Your task to perform on an android device: toggle priority inbox in the gmail app Image 0: 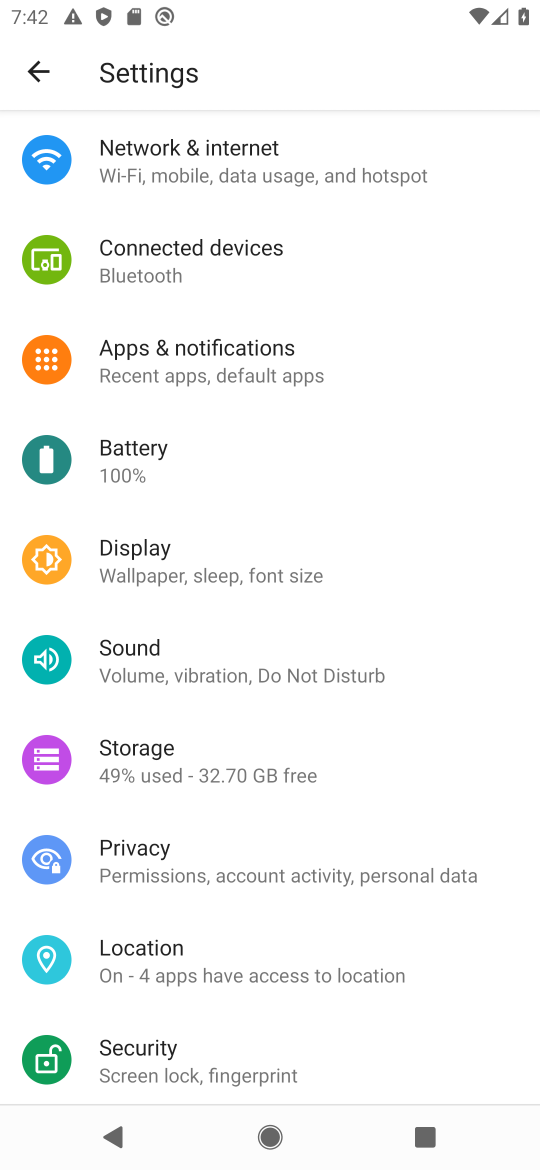
Step 0: press home button
Your task to perform on an android device: toggle priority inbox in the gmail app Image 1: 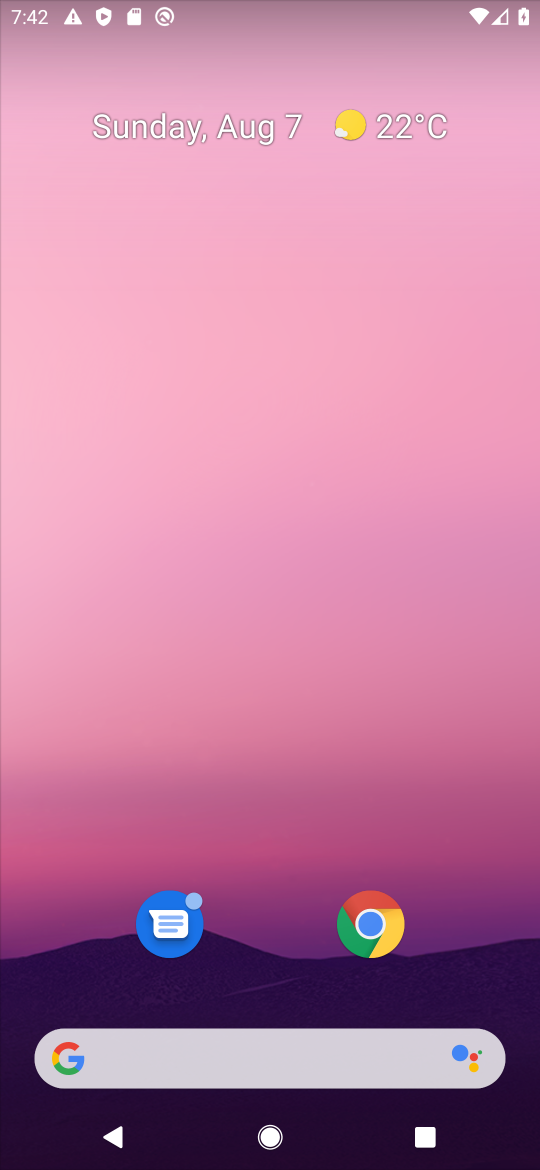
Step 1: drag from (286, 917) to (344, 126)
Your task to perform on an android device: toggle priority inbox in the gmail app Image 2: 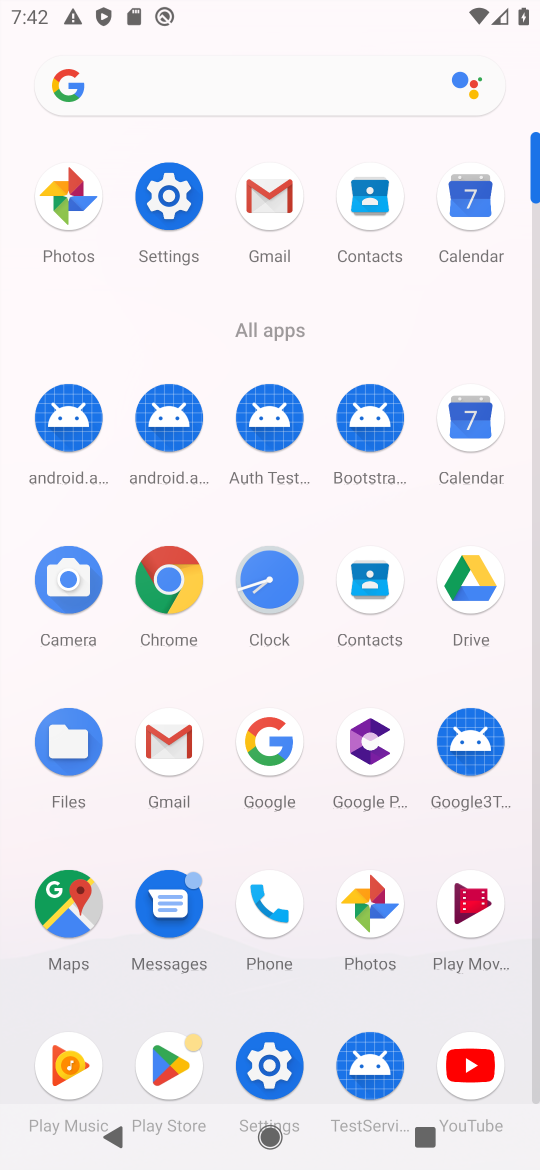
Step 2: click (279, 207)
Your task to perform on an android device: toggle priority inbox in the gmail app Image 3: 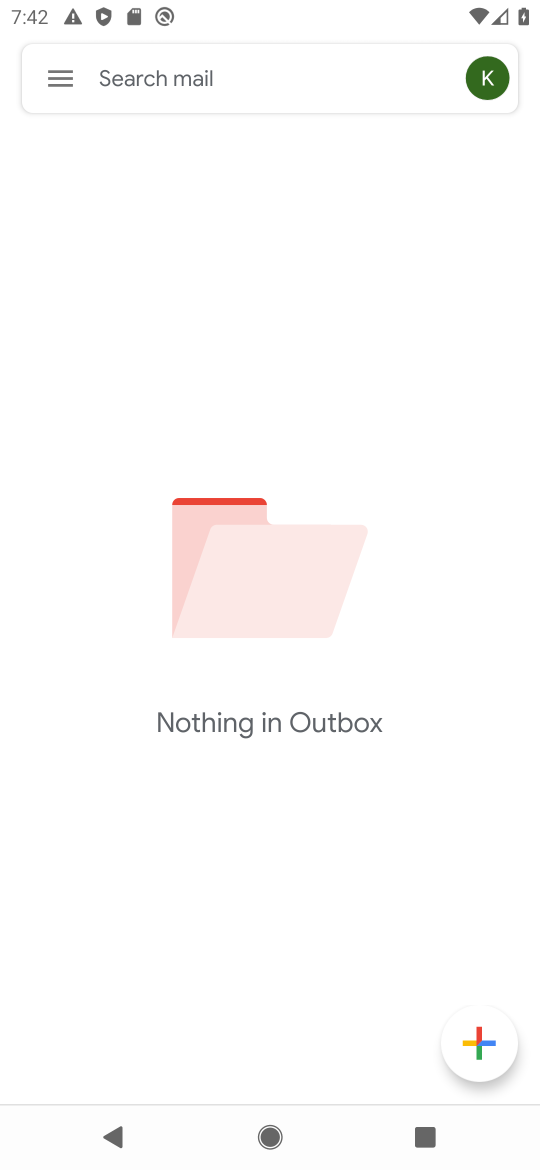
Step 3: click (61, 80)
Your task to perform on an android device: toggle priority inbox in the gmail app Image 4: 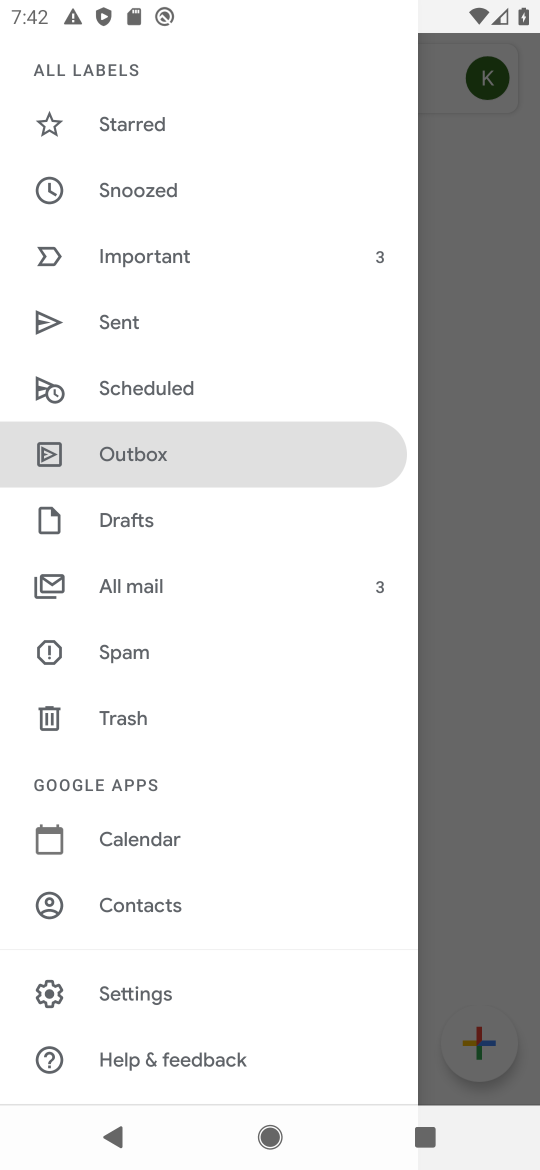
Step 4: click (130, 990)
Your task to perform on an android device: toggle priority inbox in the gmail app Image 5: 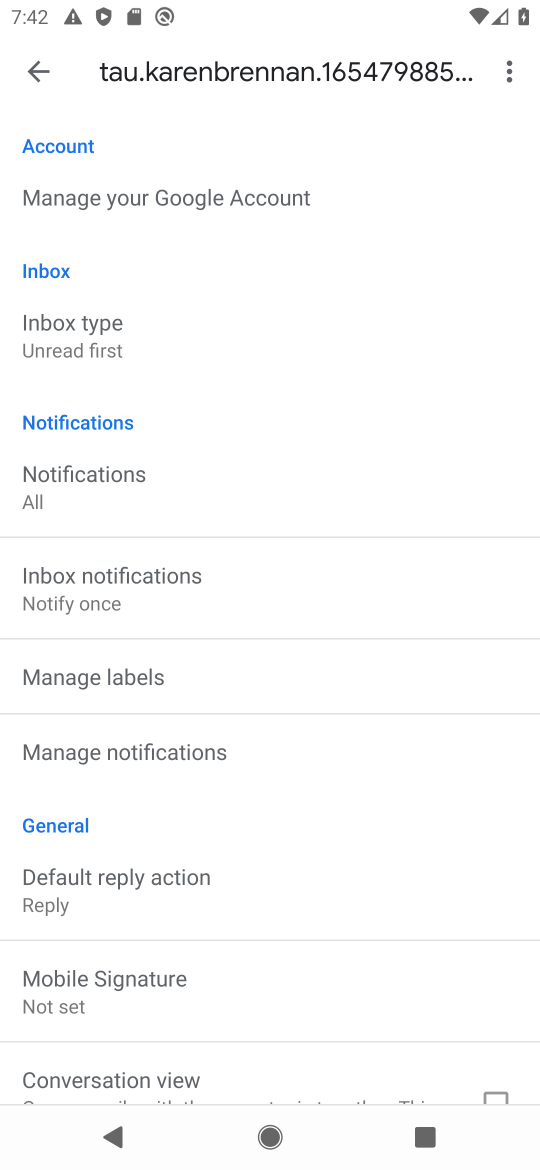
Step 5: click (82, 328)
Your task to perform on an android device: toggle priority inbox in the gmail app Image 6: 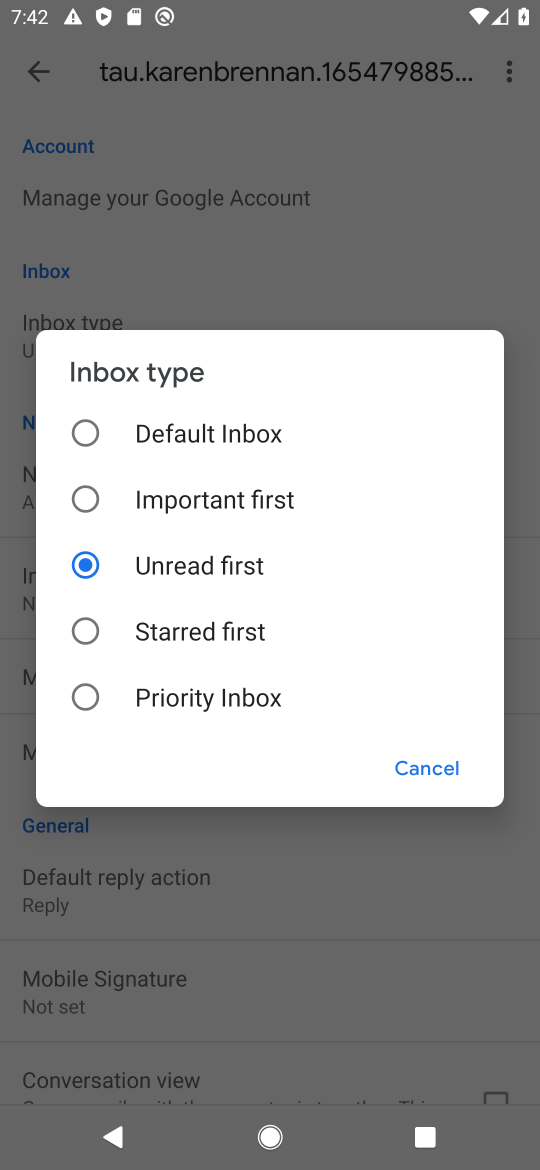
Step 6: click (91, 687)
Your task to perform on an android device: toggle priority inbox in the gmail app Image 7: 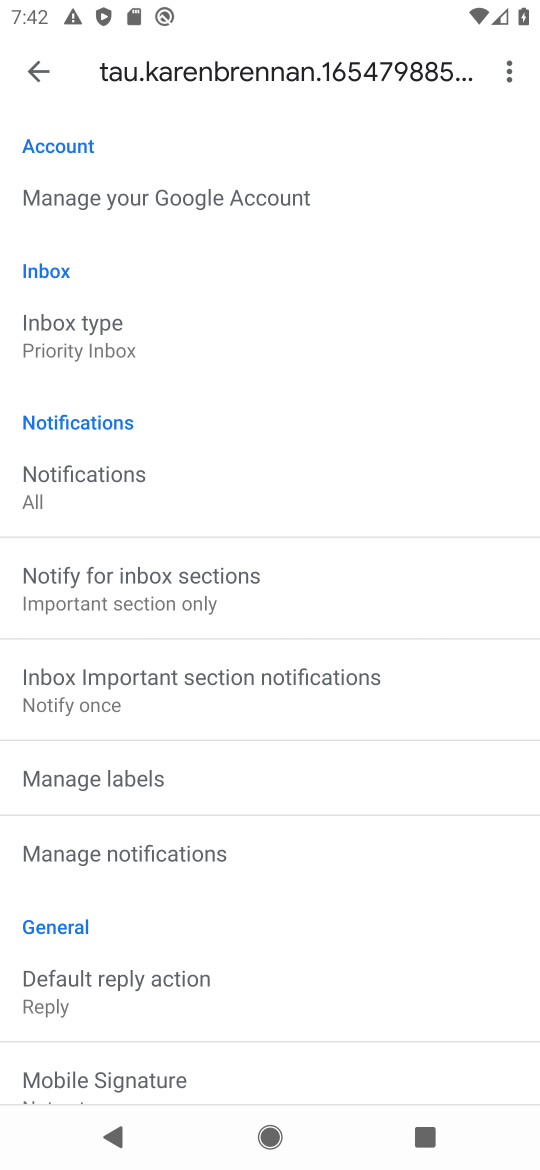
Step 7: task complete